Your task to perform on an android device: turn on wifi Image 0: 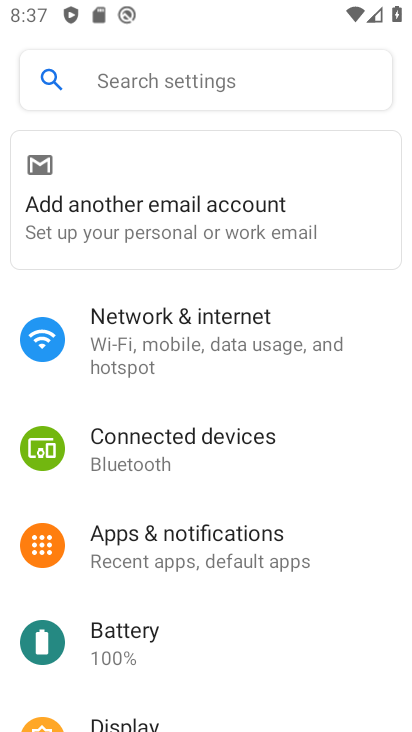
Step 0: click (239, 338)
Your task to perform on an android device: turn on wifi Image 1: 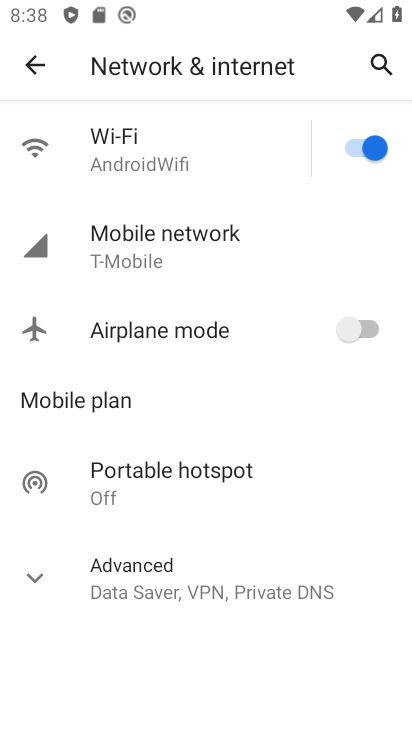
Step 1: task complete